Your task to perform on an android device: turn vacation reply on in the gmail app Image 0: 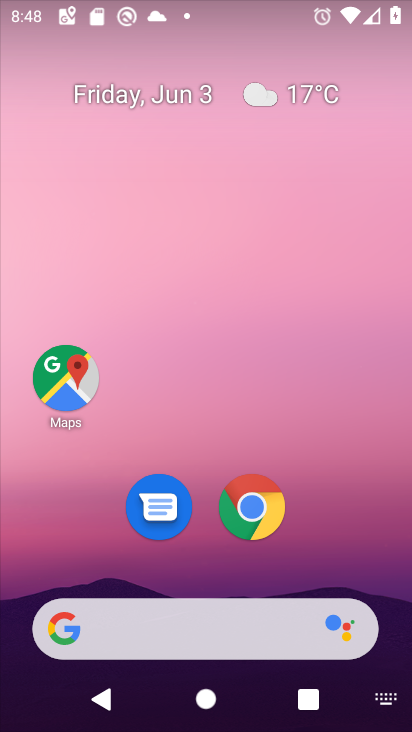
Step 0: drag from (339, 478) to (246, 54)
Your task to perform on an android device: turn vacation reply on in the gmail app Image 1: 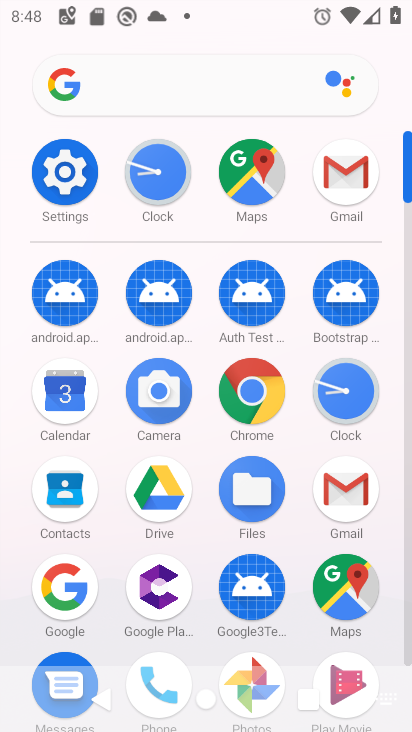
Step 1: click (343, 481)
Your task to perform on an android device: turn vacation reply on in the gmail app Image 2: 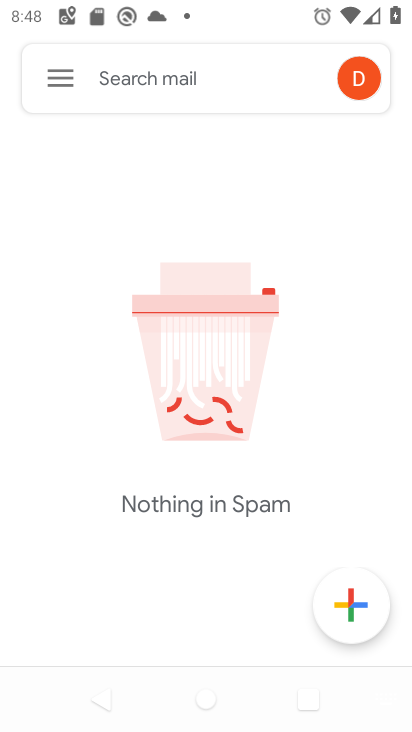
Step 2: click (64, 81)
Your task to perform on an android device: turn vacation reply on in the gmail app Image 3: 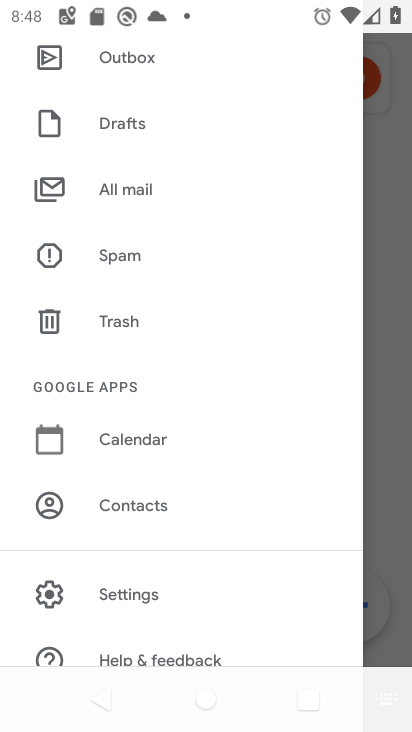
Step 3: click (193, 593)
Your task to perform on an android device: turn vacation reply on in the gmail app Image 4: 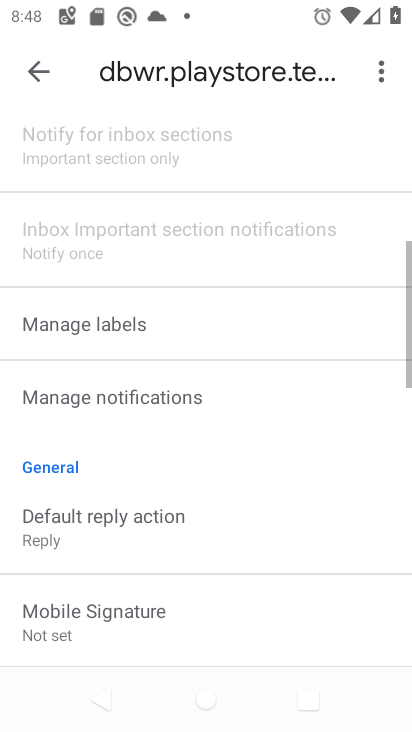
Step 4: drag from (250, 489) to (193, 81)
Your task to perform on an android device: turn vacation reply on in the gmail app Image 5: 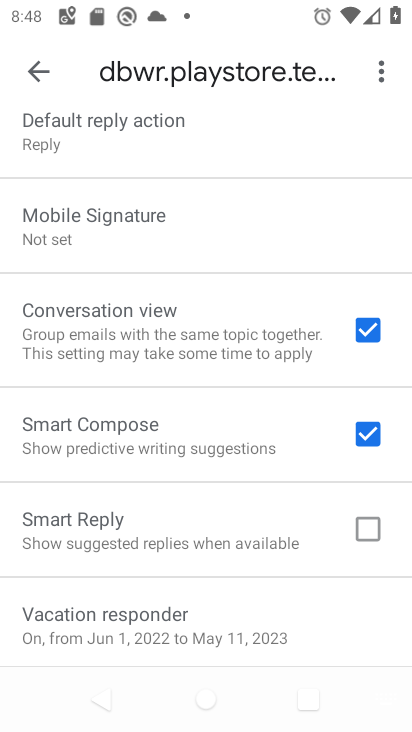
Step 5: click (171, 618)
Your task to perform on an android device: turn vacation reply on in the gmail app Image 6: 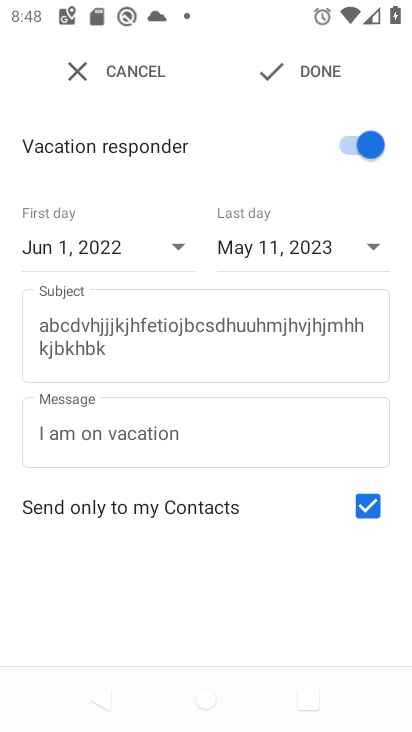
Step 6: click (333, 59)
Your task to perform on an android device: turn vacation reply on in the gmail app Image 7: 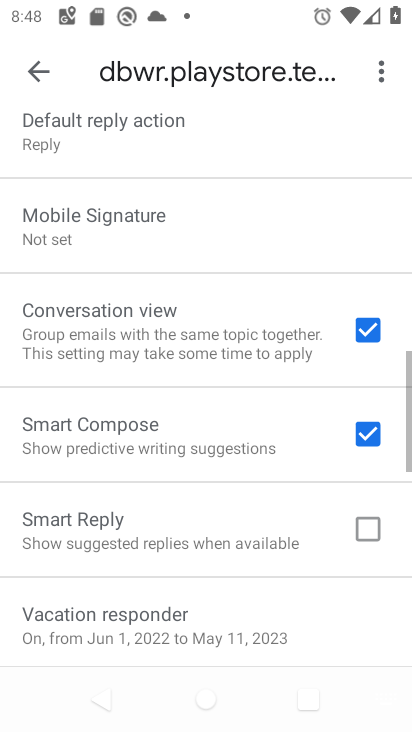
Step 7: task complete